Your task to perform on an android device: turn on location history Image 0: 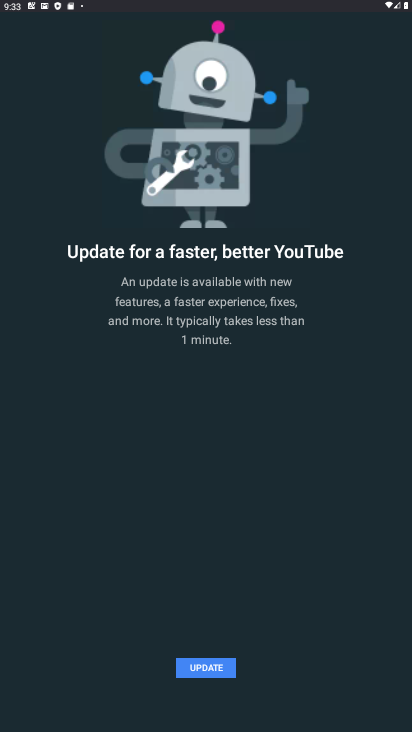
Step 0: press home button
Your task to perform on an android device: turn on location history Image 1: 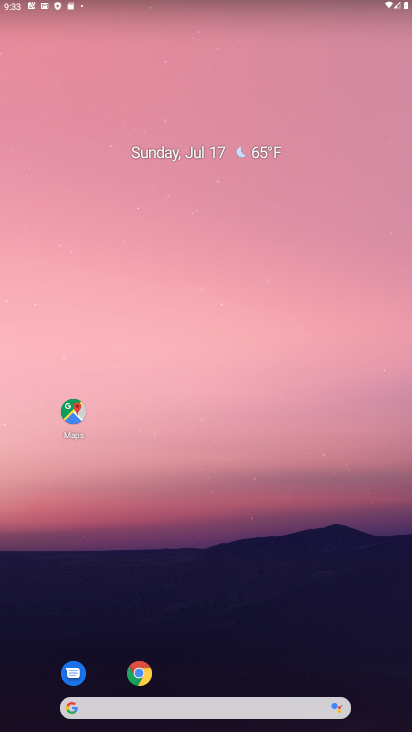
Step 1: drag from (220, 580) to (136, 32)
Your task to perform on an android device: turn on location history Image 2: 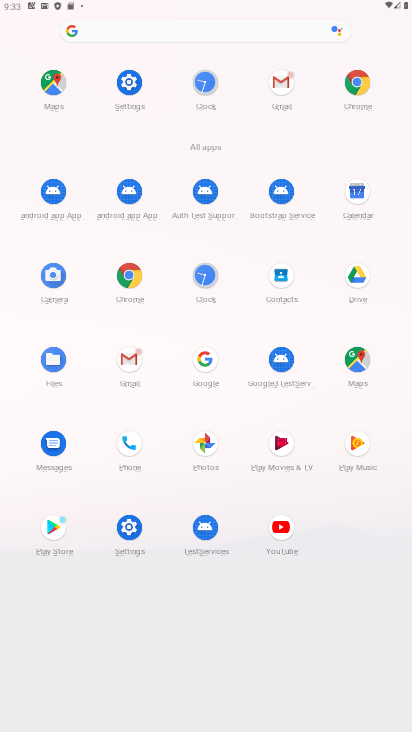
Step 2: click (130, 85)
Your task to perform on an android device: turn on location history Image 3: 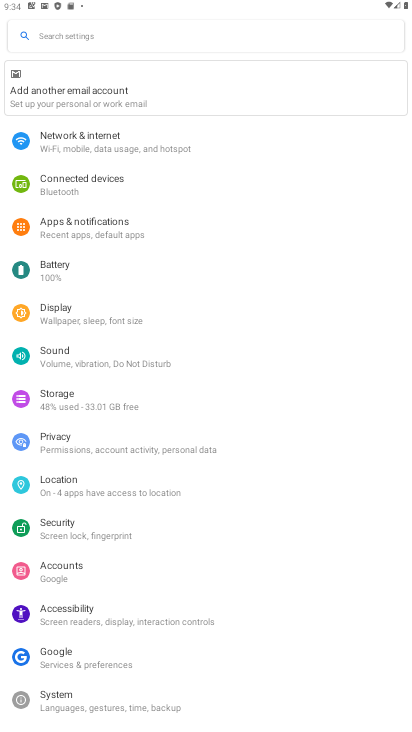
Step 3: click (52, 477)
Your task to perform on an android device: turn on location history Image 4: 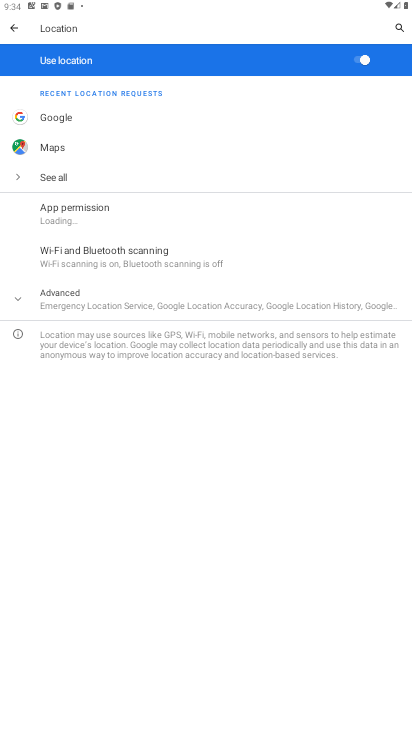
Step 4: click (20, 297)
Your task to perform on an android device: turn on location history Image 5: 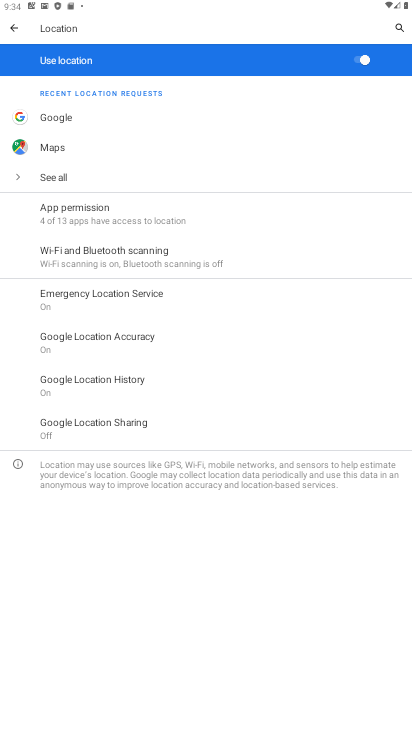
Step 5: click (108, 375)
Your task to perform on an android device: turn on location history Image 6: 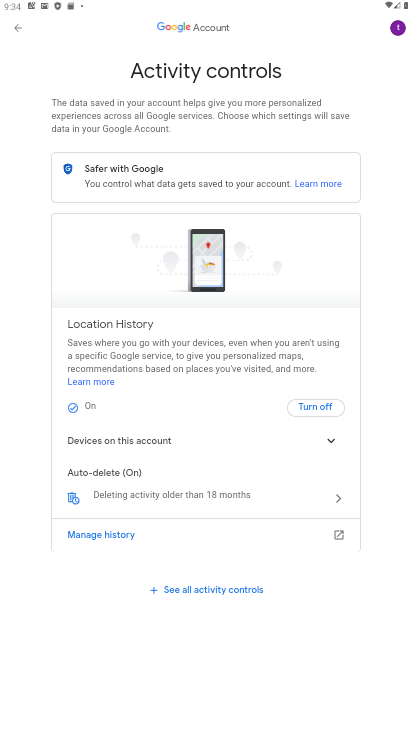
Step 6: task complete